Your task to perform on an android device: Open maps Image 0: 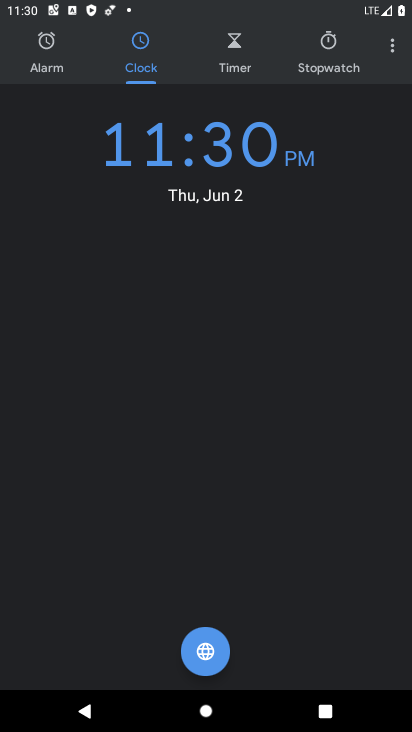
Step 0: press home button
Your task to perform on an android device: Open maps Image 1: 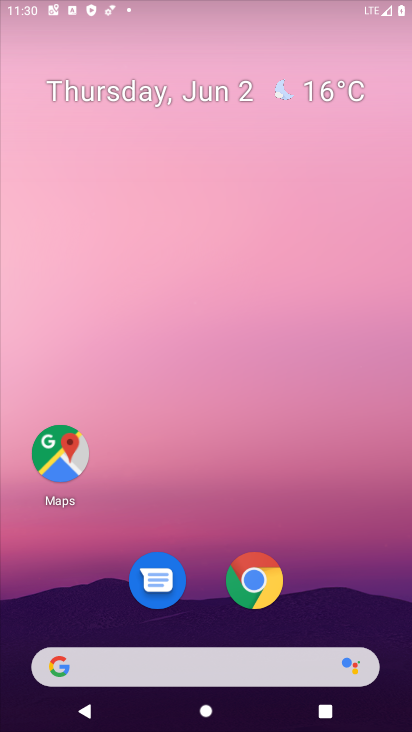
Step 1: drag from (170, 561) to (200, 434)
Your task to perform on an android device: Open maps Image 2: 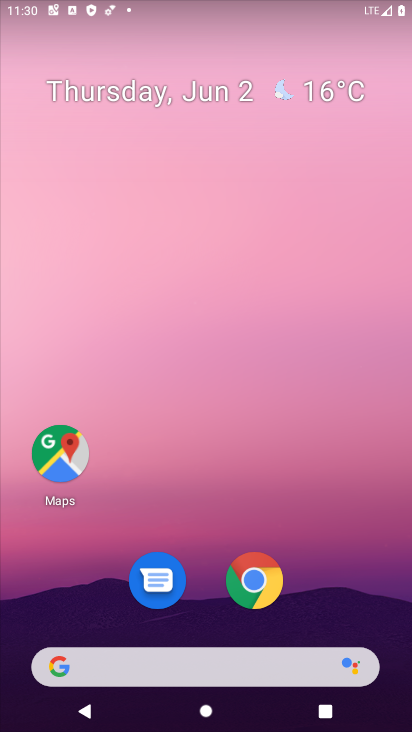
Step 2: drag from (223, 540) to (250, 374)
Your task to perform on an android device: Open maps Image 3: 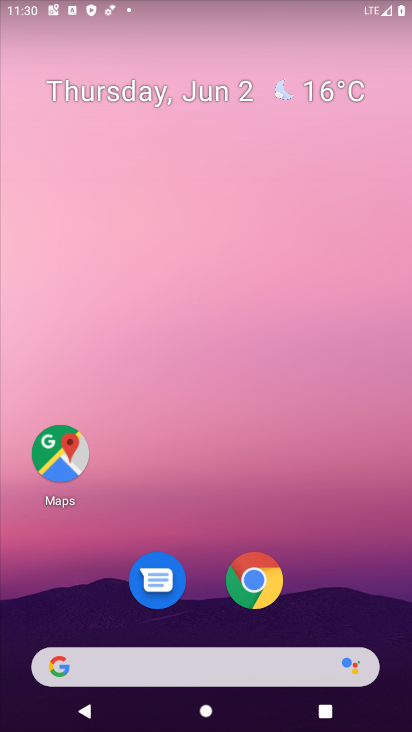
Step 3: drag from (204, 649) to (244, 114)
Your task to perform on an android device: Open maps Image 4: 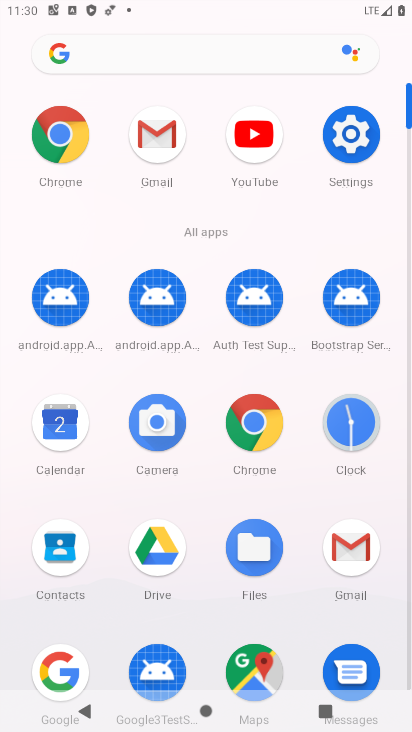
Step 4: drag from (185, 552) to (265, 215)
Your task to perform on an android device: Open maps Image 5: 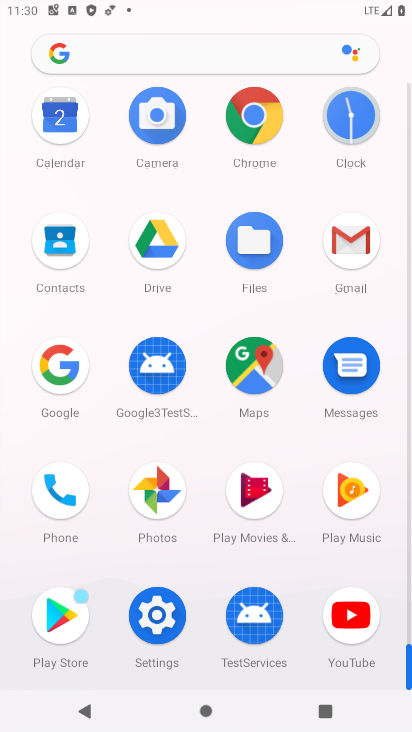
Step 5: click (288, 380)
Your task to perform on an android device: Open maps Image 6: 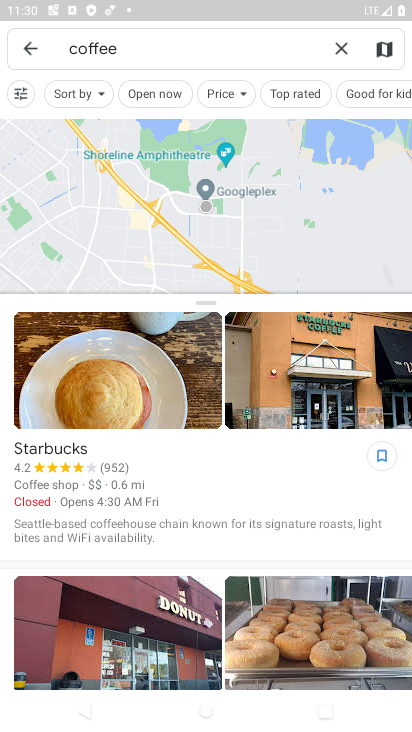
Step 6: task complete